Your task to perform on an android device: turn on improve location accuracy Image 0: 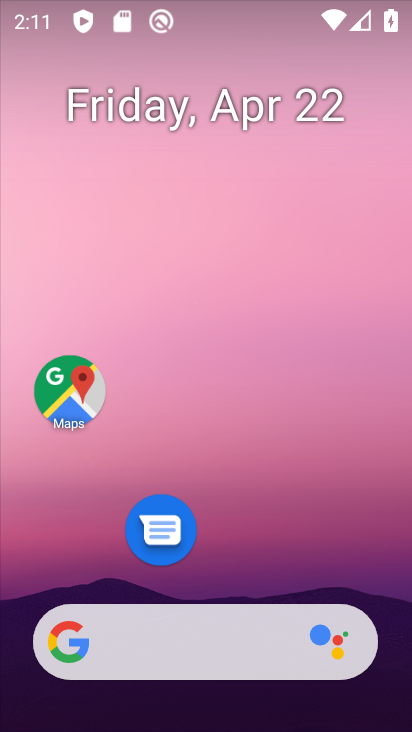
Step 0: drag from (214, 575) to (133, 4)
Your task to perform on an android device: turn on improve location accuracy Image 1: 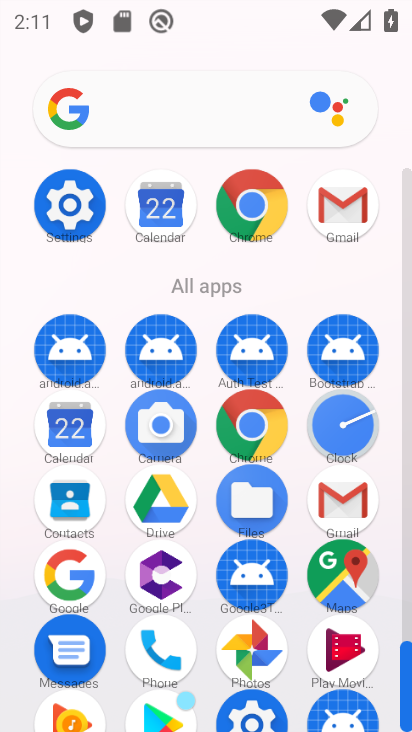
Step 1: click (71, 205)
Your task to perform on an android device: turn on improve location accuracy Image 2: 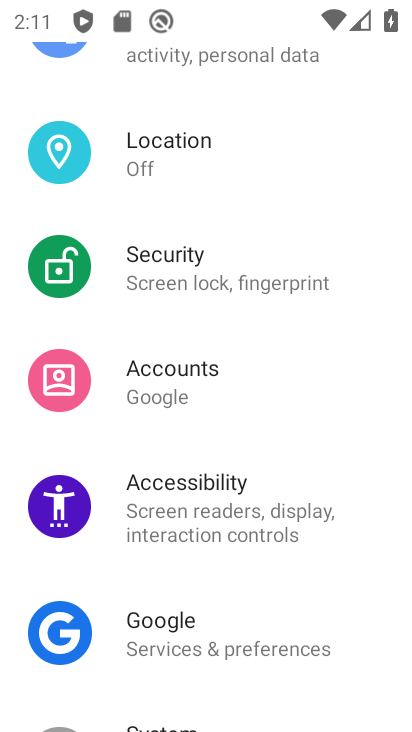
Step 2: click (142, 135)
Your task to perform on an android device: turn on improve location accuracy Image 3: 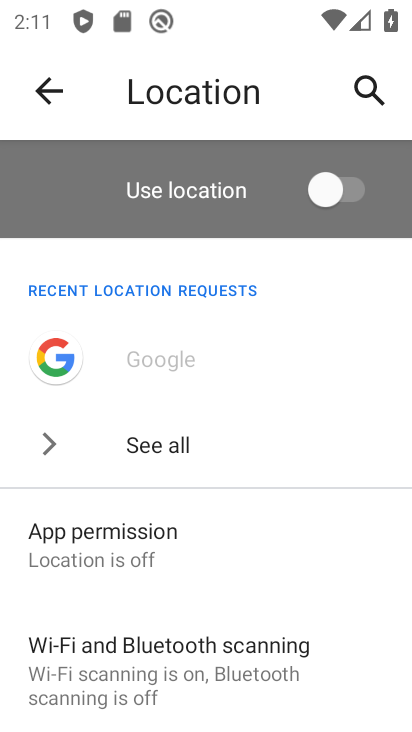
Step 3: drag from (215, 577) to (198, 292)
Your task to perform on an android device: turn on improve location accuracy Image 4: 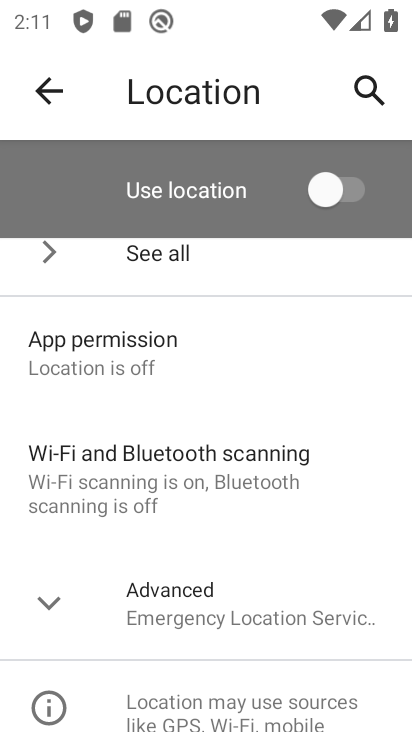
Step 4: click (151, 607)
Your task to perform on an android device: turn on improve location accuracy Image 5: 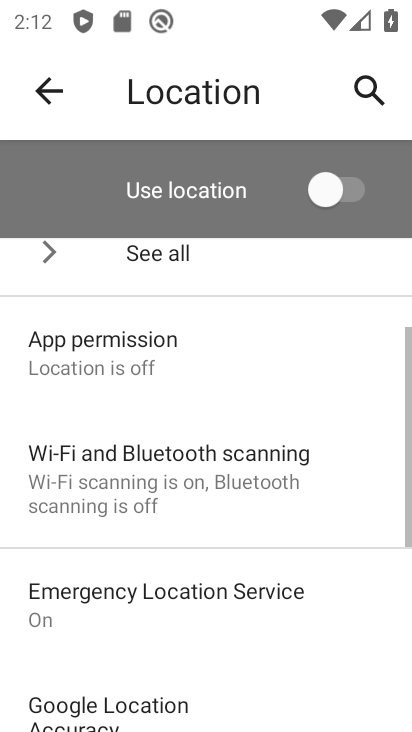
Step 5: drag from (198, 613) to (179, 302)
Your task to perform on an android device: turn on improve location accuracy Image 6: 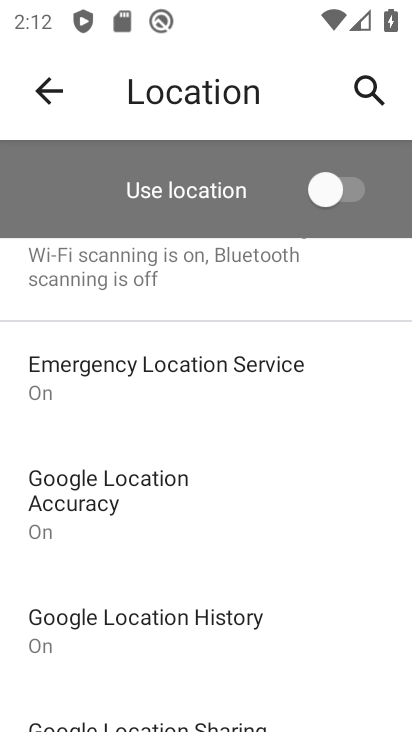
Step 6: click (100, 488)
Your task to perform on an android device: turn on improve location accuracy Image 7: 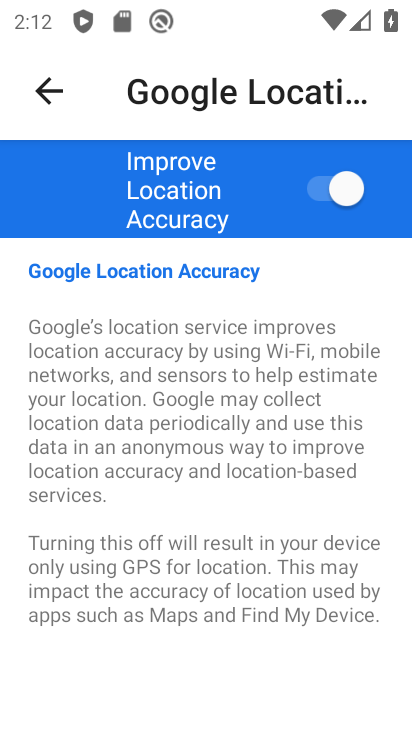
Step 7: task complete